Your task to perform on an android device: turn on improve location accuracy Image 0: 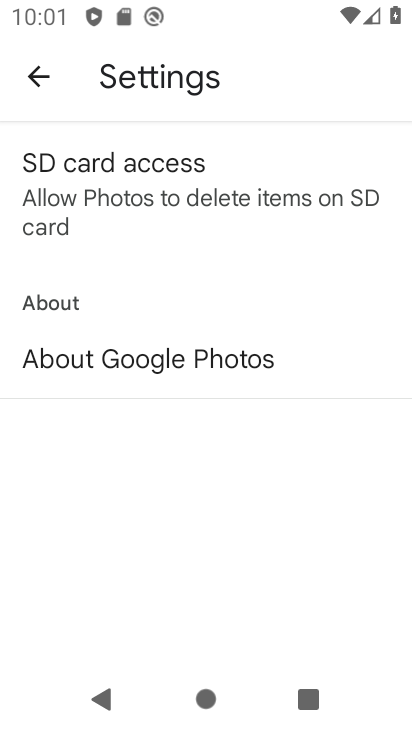
Step 0: press home button
Your task to perform on an android device: turn on improve location accuracy Image 1: 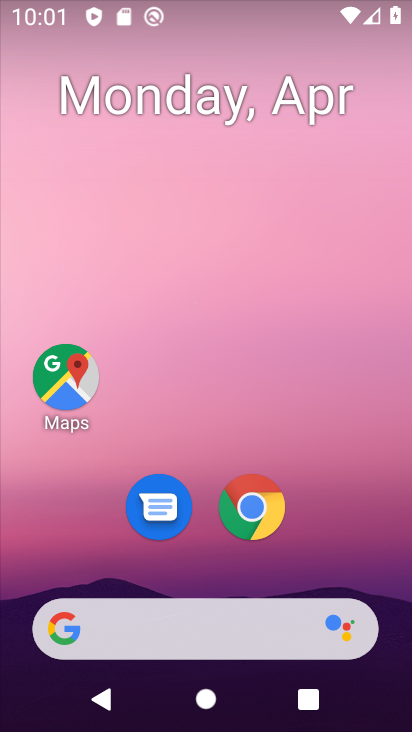
Step 1: drag from (343, 431) to (311, 82)
Your task to perform on an android device: turn on improve location accuracy Image 2: 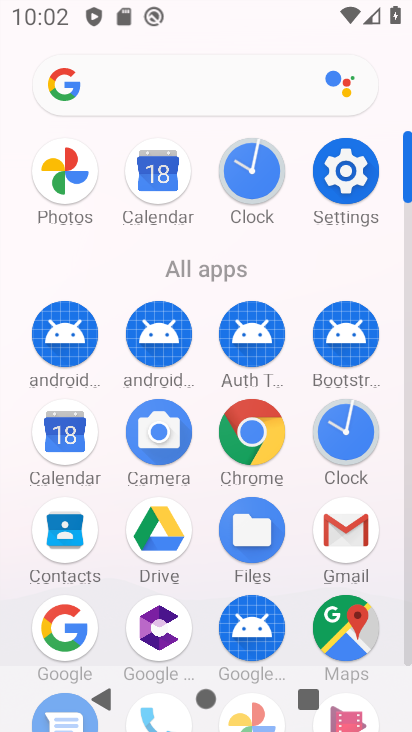
Step 2: click (375, 179)
Your task to perform on an android device: turn on improve location accuracy Image 3: 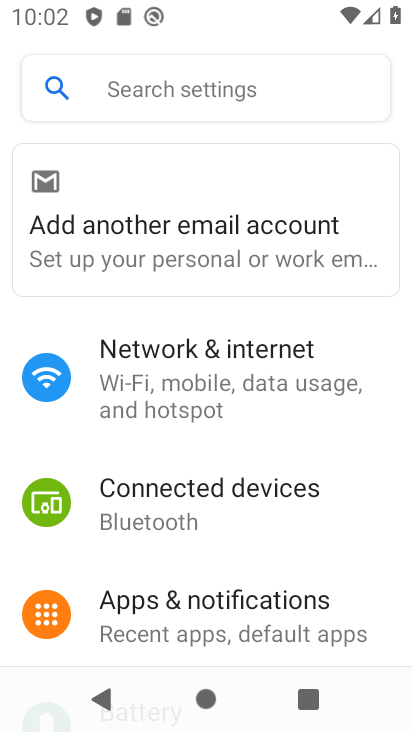
Step 3: drag from (273, 628) to (270, 150)
Your task to perform on an android device: turn on improve location accuracy Image 4: 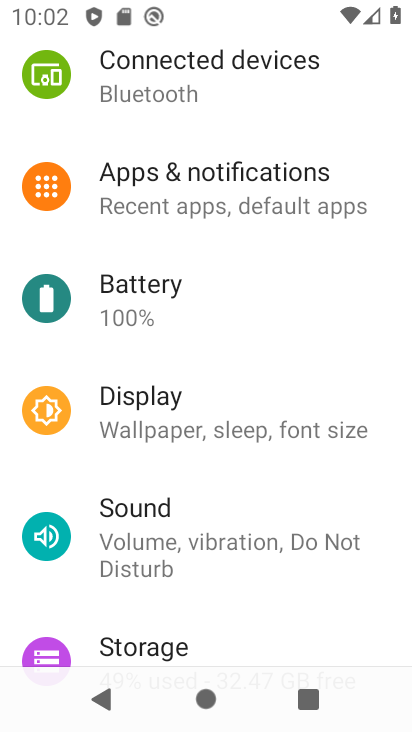
Step 4: drag from (193, 549) to (207, 278)
Your task to perform on an android device: turn on improve location accuracy Image 5: 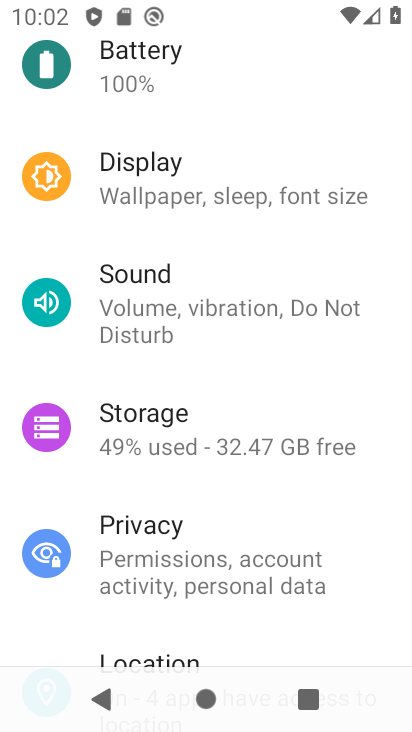
Step 5: drag from (195, 524) to (189, 252)
Your task to perform on an android device: turn on improve location accuracy Image 6: 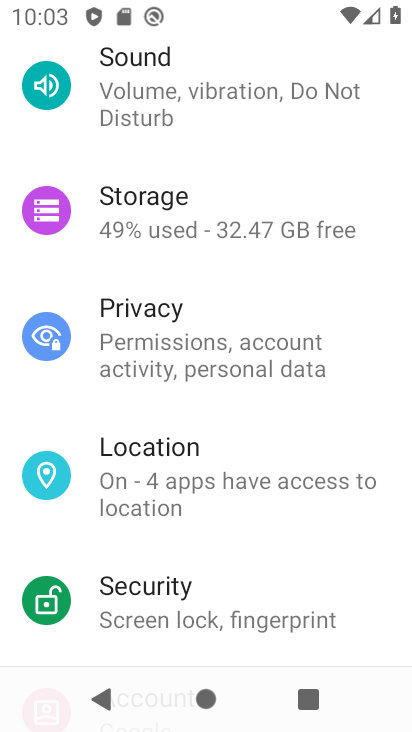
Step 6: click (131, 479)
Your task to perform on an android device: turn on improve location accuracy Image 7: 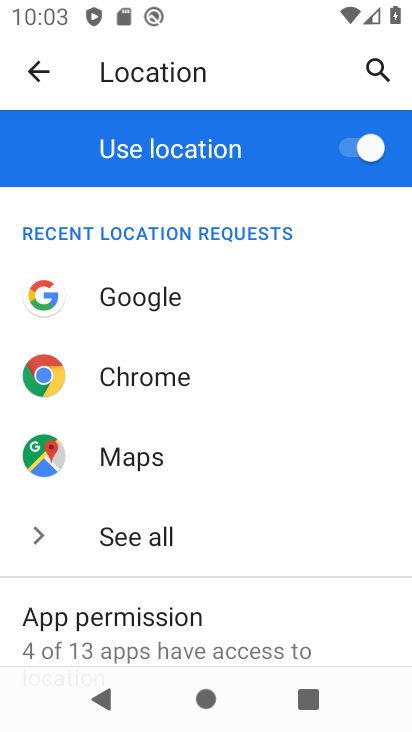
Step 7: drag from (204, 580) to (212, 252)
Your task to perform on an android device: turn on improve location accuracy Image 8: 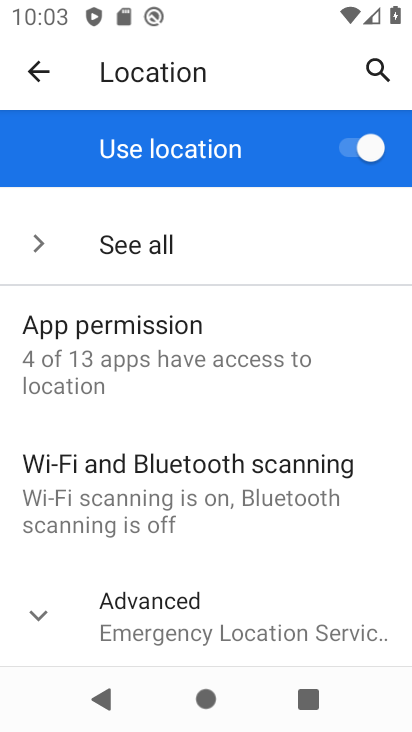
Step 8: click (181, 586)
Your task to perform on an android device: turn on improve location accuracy Image 9: 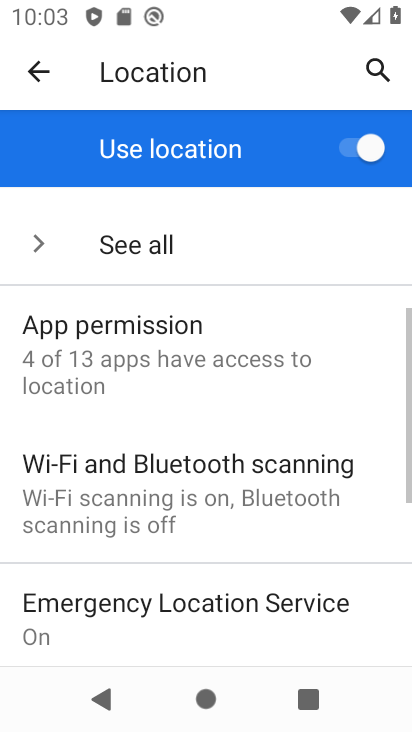
Step 9: drag from (204, 588) to (196, 275)
Your task to perform on an android device: turn on improve location accuracy Image 10: 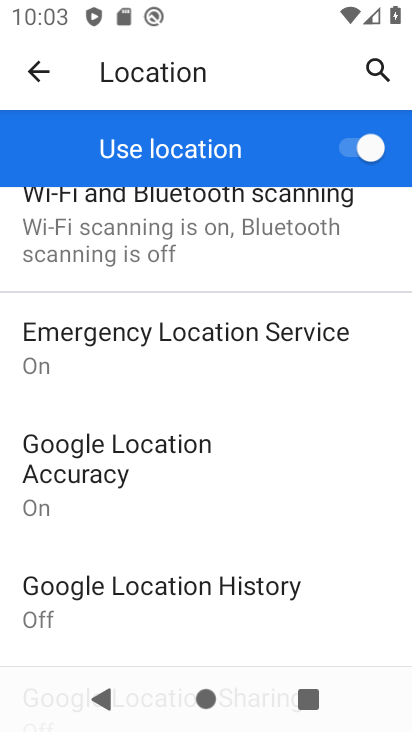
Step 10: click (156, 440)
Your task to perform on an android device: turn on improve location accuracy Image 11: 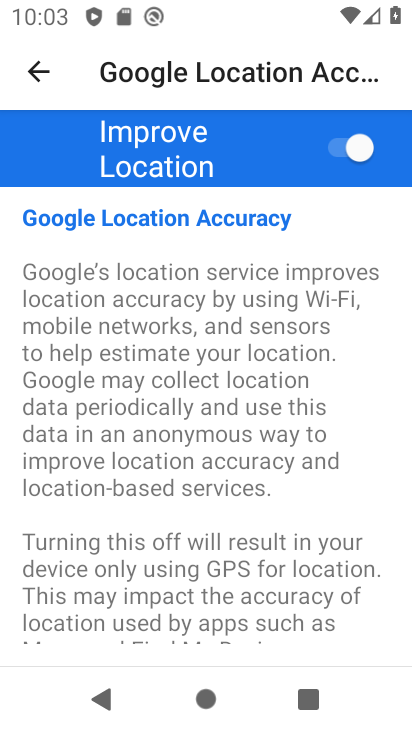
Step 11: task complete